Your task to perform on an android device: check storage Image 0: 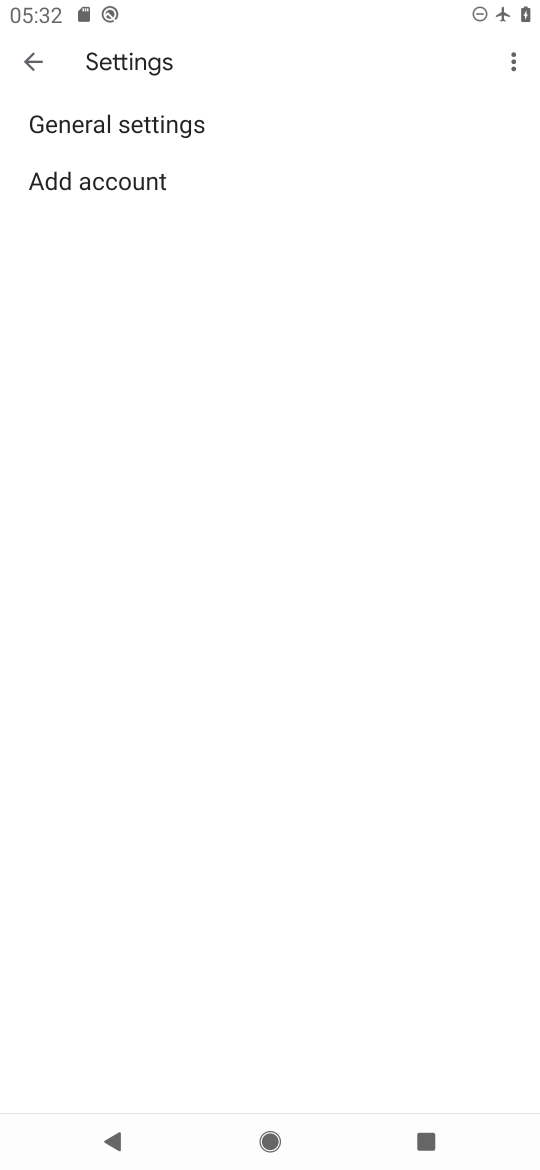
Step 0: press home button
Your task to perform on an android device: check storage Image 1: 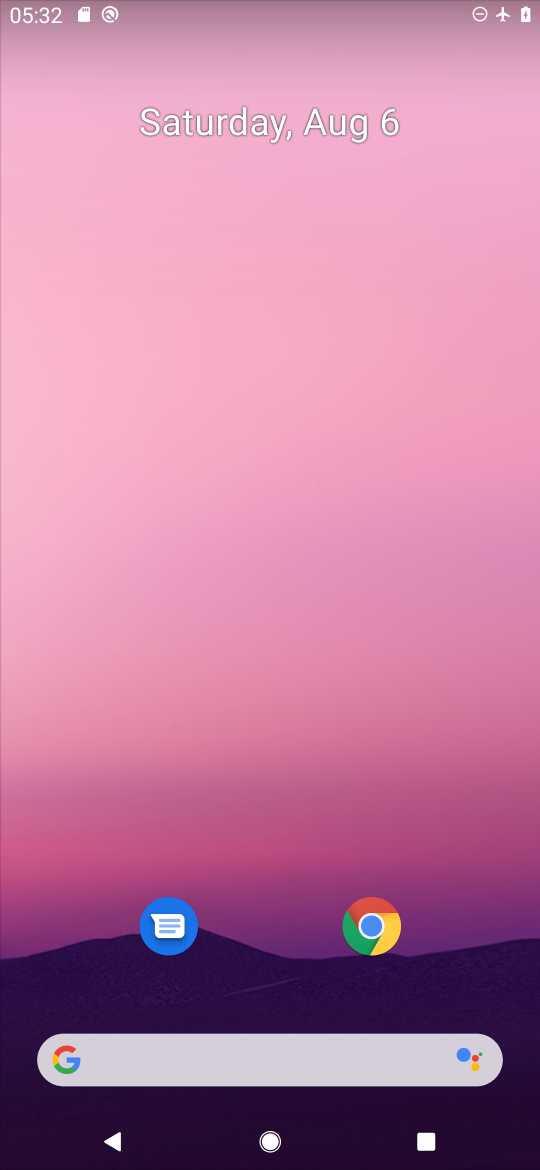
Step 1: drag from (283, 944) to (257, 324)
Your task to perform on an android device: check storage Image 2: 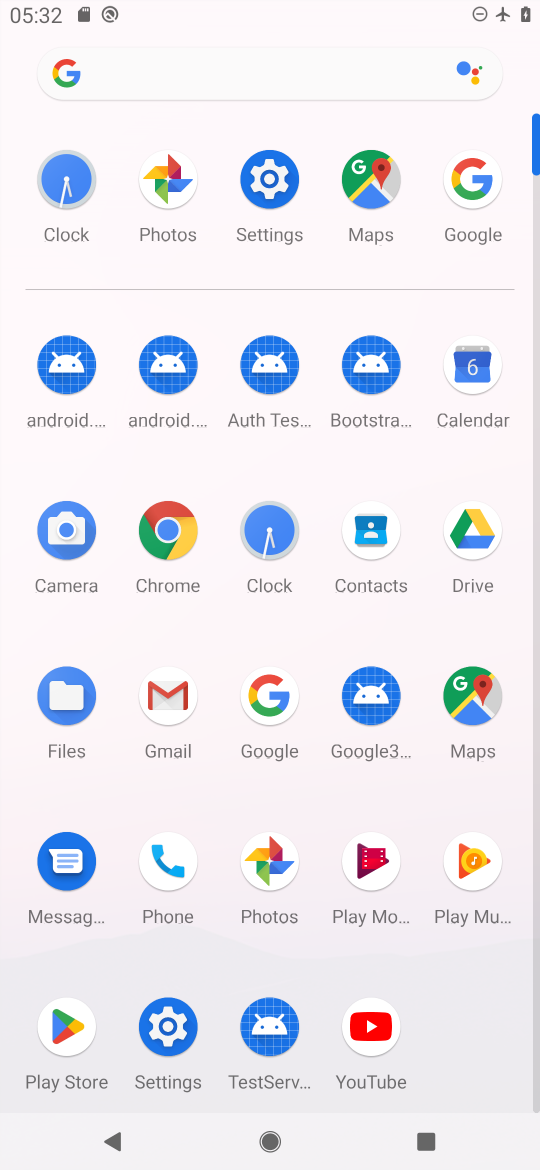
Step 2: click (254, 174)
Your task to perform on an android device: check storage Image 3: 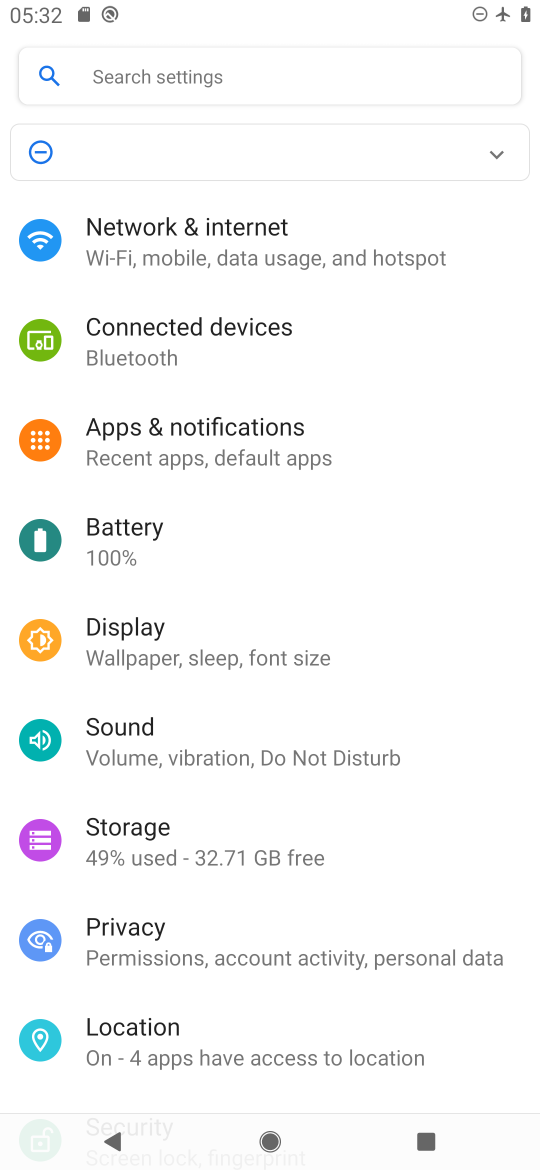
Step 3: click (293, 843)
Your task to perform on an android device: check storage Image 4: 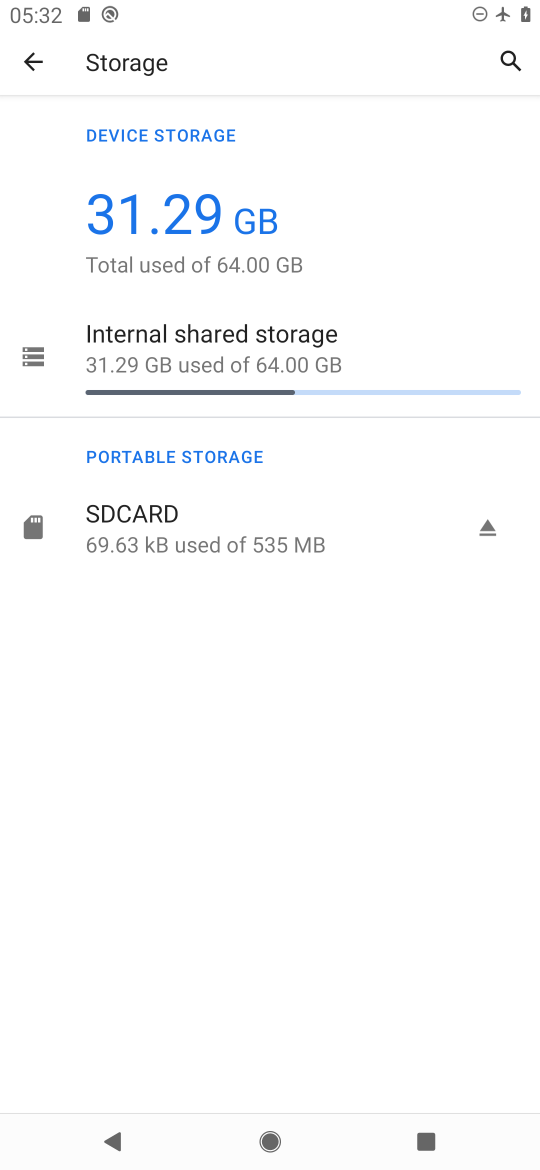
Step 4: task complete